Your task to perform on an android device: Open Chrome and go to settings Image 0: 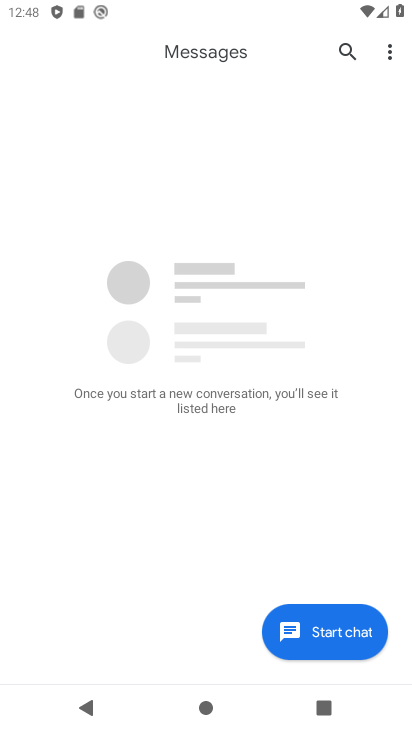
Step 0: press home button
Your task to perform on an android device: Open Chrome and go to settings Image 1: 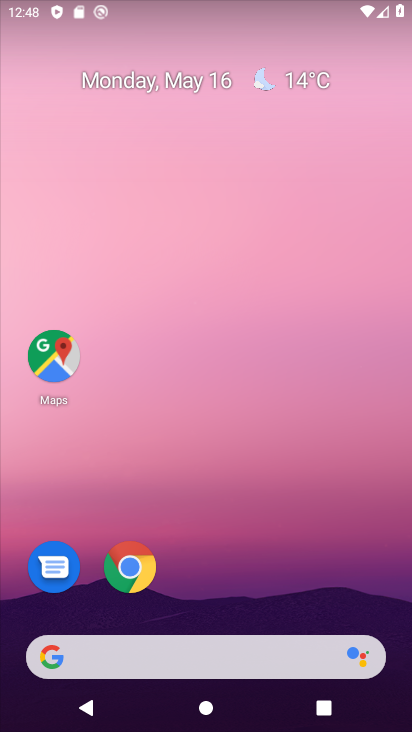
Step 1: click (135, 567)
Your task to perform on an android device: Open Chrome and go to settings Image 2: 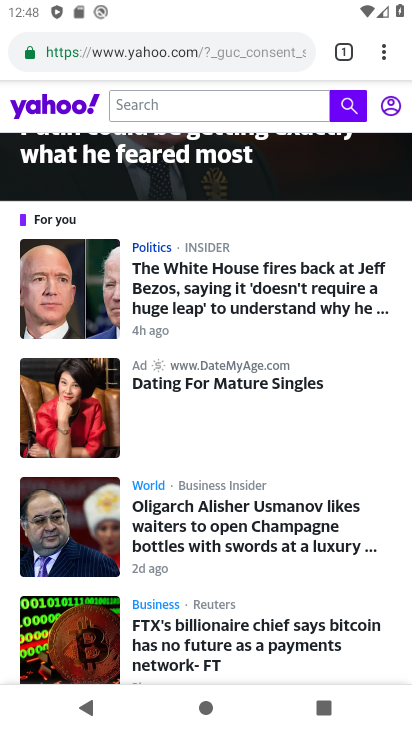
Step 2: click (382, 54)
Your task to perform on an android device: Open Chrome and go to settings Image 3: 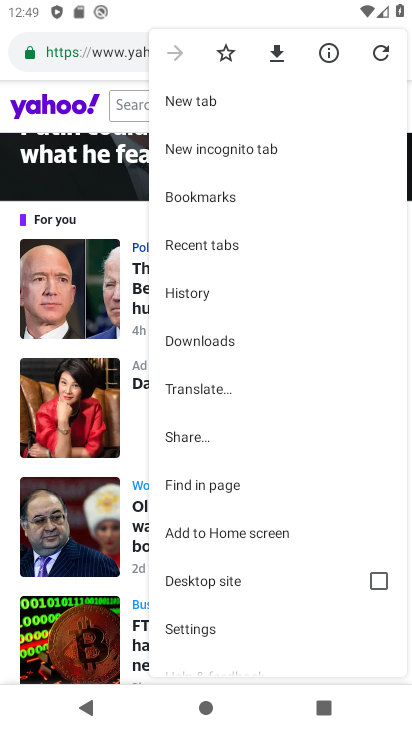
Step 3: drag from (220, 613) to (187, 204)
Your task to perform on an android device: Open Chrome and go to settings Image 4: 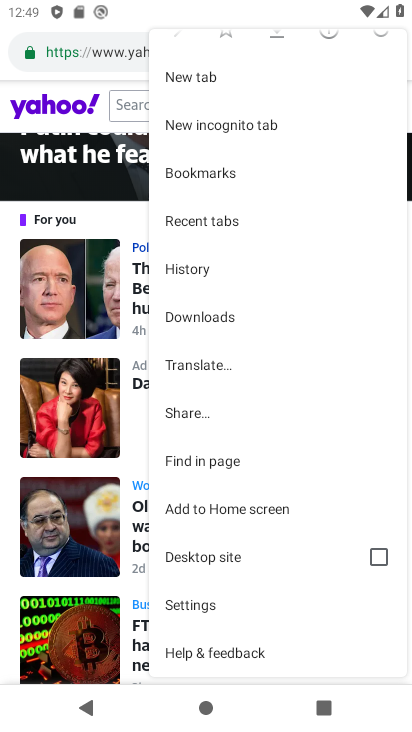
Step 4: click (210, 600)
Your task to perform on an android device: Open Chrome and go to settings Image 5: 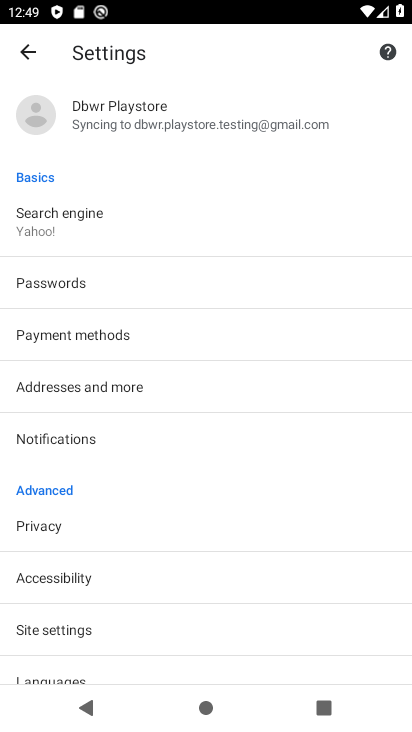
Step 5: task complete